Your task to perform on an android device: turn off improve location accuracy Image 0: 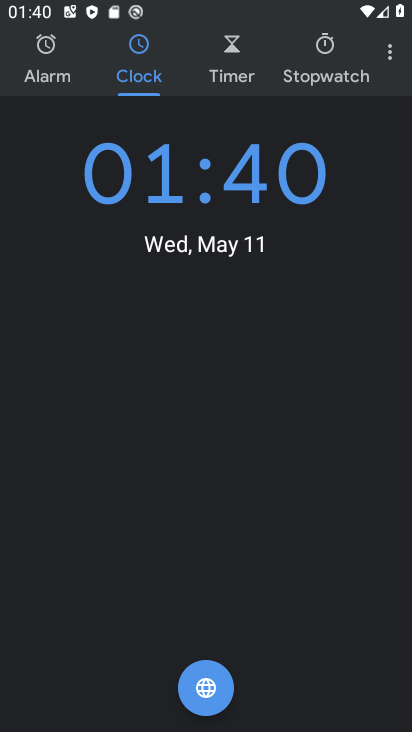
Step 0: press home button
Your task to perform on an android device: turn off improve location accuracy Image 1: 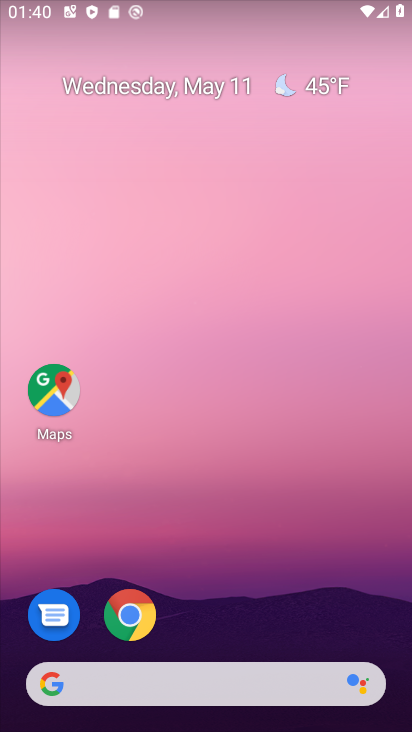
Step 1: drag from (364, 503) to (357, 118)
Your task to perform on an android device: turn off improve location accuracy Image 2: 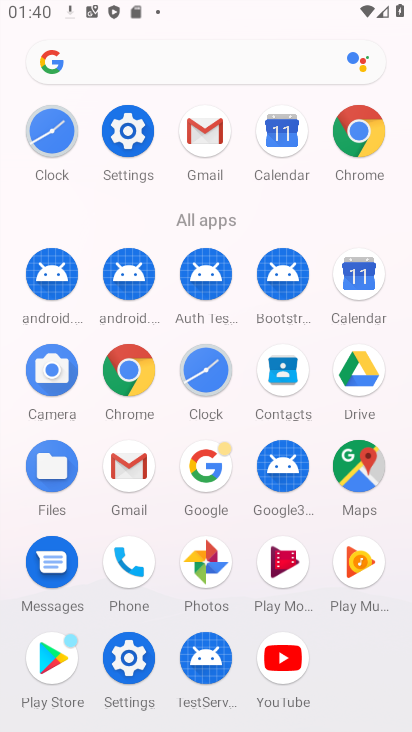
Step 2: click (127, 664)
Your task to perform on an android device: turn off improve location accuracy Image 3: 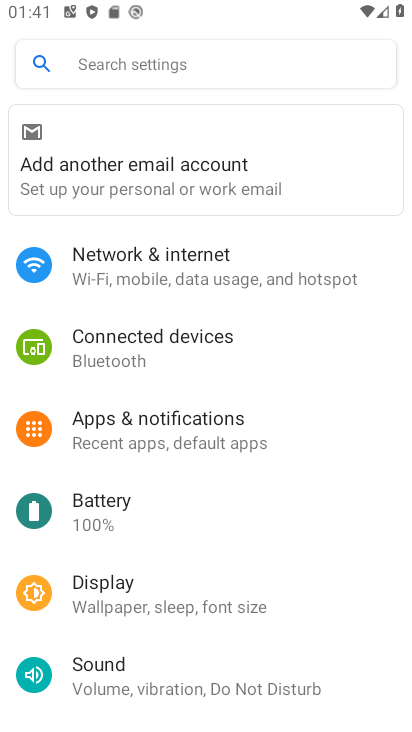
Step 3: drag from (237, 645) to (265, 308)
Your task to perform on an android device: turn off improve location accuracy Image 4: 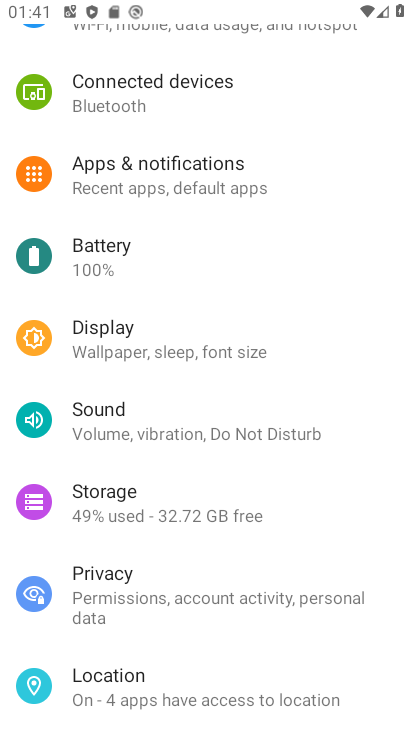
Step 4: click (147, 677)
Your task to perform on an android device: turn off improve location accuracy Image 5: 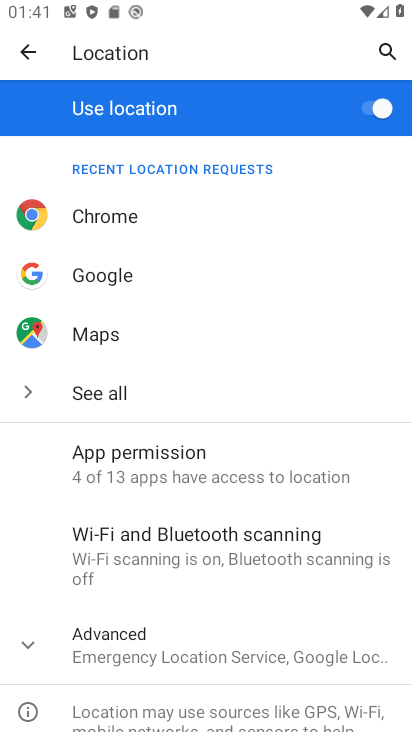
Step 5: drag from (249, 659) to (270, 318)
Your task to perform on an android device: turn off improve location accuracy Image 6: 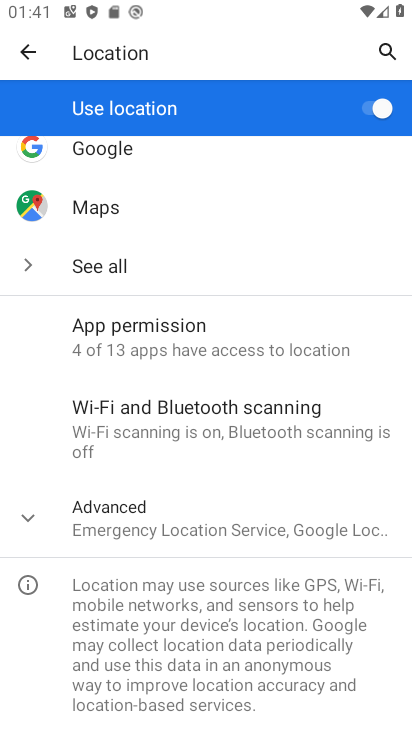
Step 6: click (233, 527)
Your task to perform on an android device: turn off improve location accuracy Image 7: 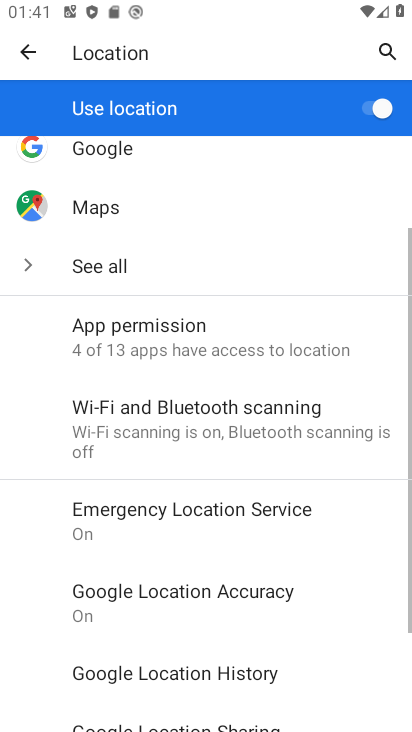
Step 7: drag from (264, 667) to (250, 375)
Your task to perform on an android device: turn off improve location accuracy Image 8: 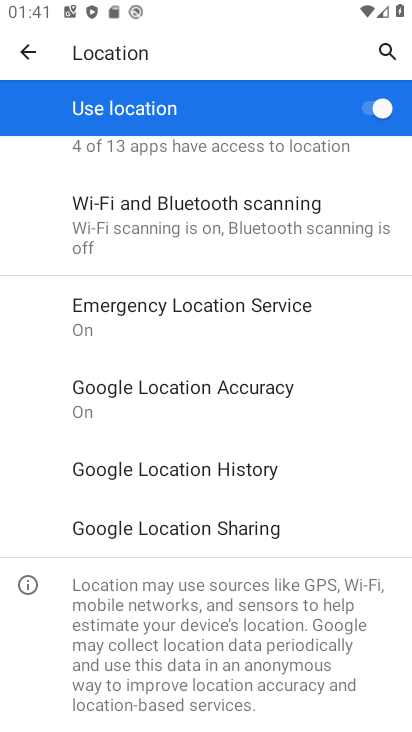
Step 8: click (238, 379)
Your task to perform on an android device: turn off improve location accuracy Image 9: 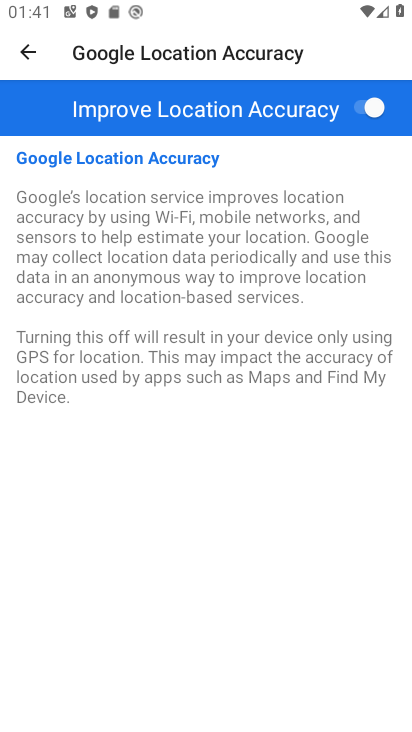
Step 9: click (358, 112)
Your task to perform on an android device: turn off improve location accuracy Image 10: 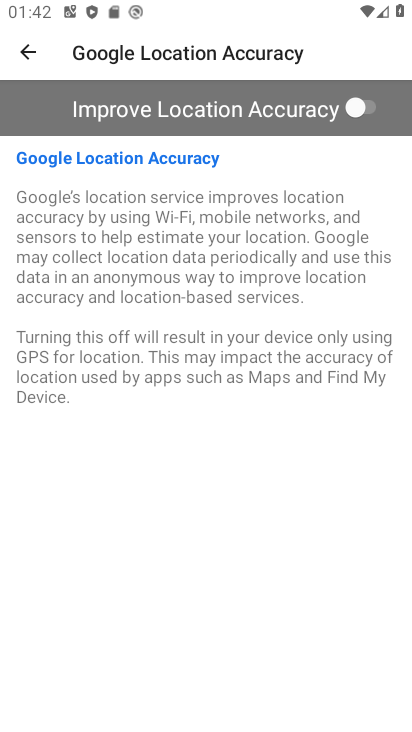
Step 10: task complete